Your task to perform on an android device: Add logitech g pro to the cart on amazon Image 0: 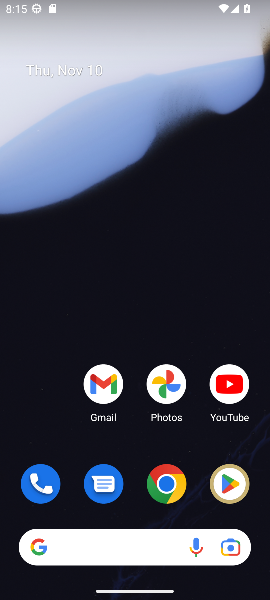
Step 0: click (166, 488)
Your task to perform on an android device: Add logitech g pro to the cart on amazon Image 1: 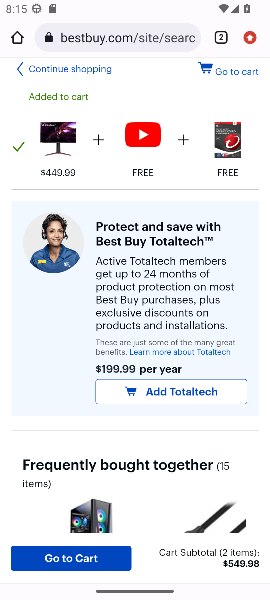
Step 1: click (126, 38)
Your task to perform on an android device: Add logitech g pro to the cart on amazon Image 2: 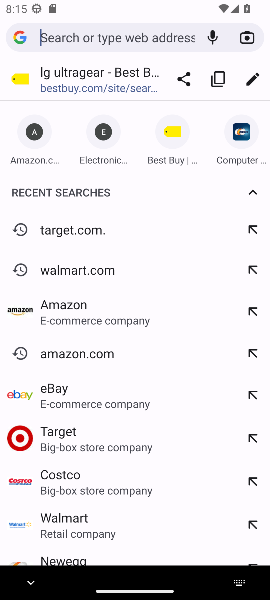
Step 2: click (37, 149)
Your task to perform on an android device: Add logitech g pro to the cart on amazon Image 3: 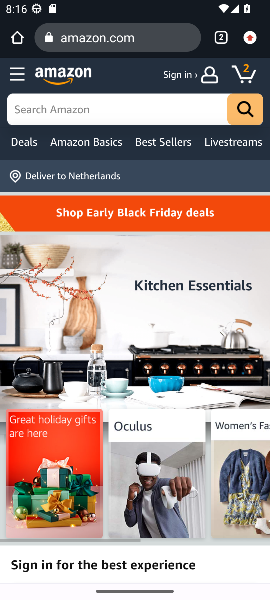
Step 3: click (50, 114)
Your task to perform on an android device: Add logitech g pro to the cart on amazon Image 4: 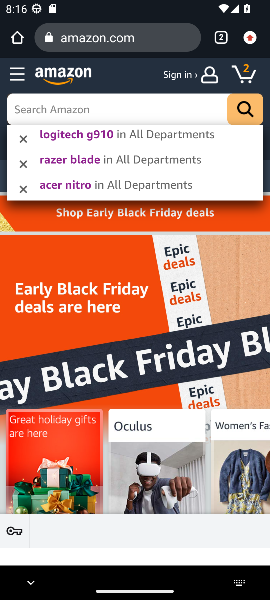
Step 4: type "logitech g pro"
Your task to perform on an android device: Add logitech g pro to the cart on amazon Image 5: 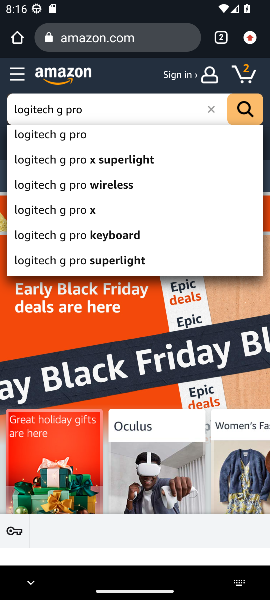
Step 5: click (65, 136)
Your task to perform on an android device: Add logitech g pro to the cart on amazon Image 6: 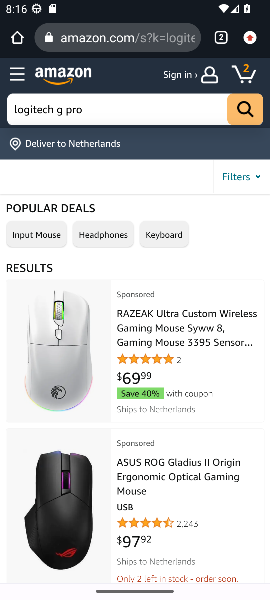
Step 6: drag from (80, 554) to (99, 305)
Your task to perform on an android device: Add logitech g pro to the cart on amazon Image 7: 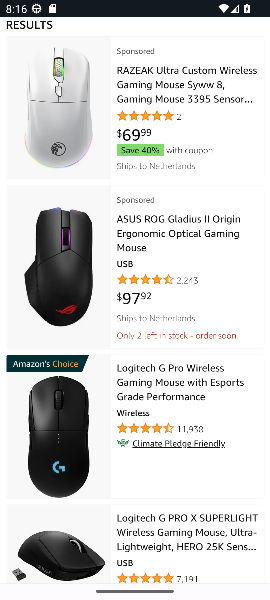
Step 7: click (82, 456)
Your task to perform on an android device: Add logitech g pro to the cart on amazon Image 8: 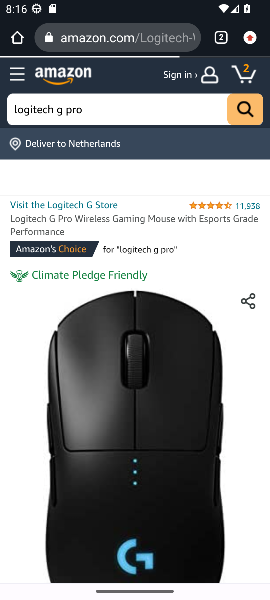
Step 8: drag from (177, 459) to (171, 140)
Your task to perform on an android device: Add logitech g pro to the cart on amazon Image 9: 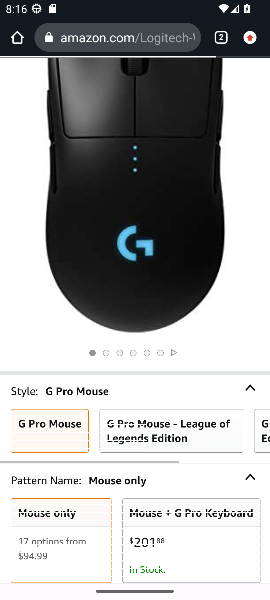
Step 9: drag from (149, 402) to (160, 170)
Your task to perform on an android device: Add logitech g pro to the cart on amazon Image 10: 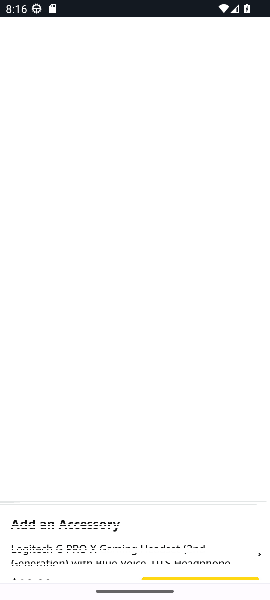
Step 10: drag from (130, 347) to (143, 520)
Your task to perform on an android device: Add logitech g pro to the cart on amazon Image 11: 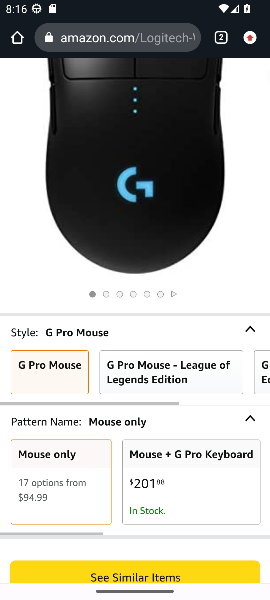
Step 11: press back button
Your task to perform on an android device: Add logitech g pro to the cart on amazon Image 12: 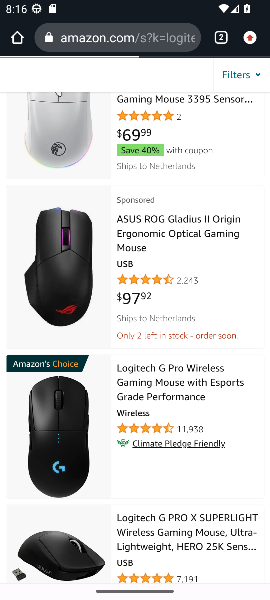
Step 12: drag from (120, 386) to (139, 202)
Your task to perform on an android device: Add logitech g pro to the cart on amazon Image 13: 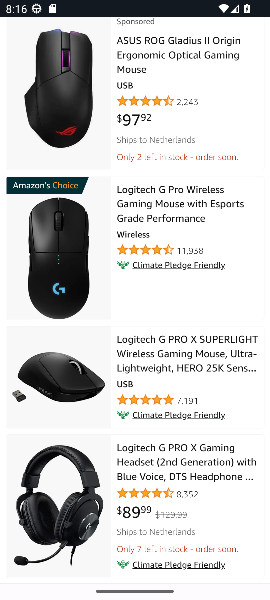
Step 13: click (67, 381)
Your task to perform on an android device: Add logitech g pro to the cart on amazon Image 14: 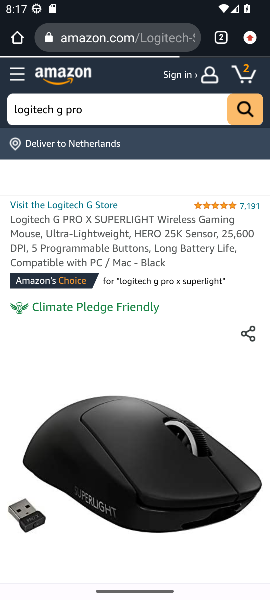
Step 14: drag from (103, 451) to (117, 240)
Your task to perform on an android device: Add logitech g pro to the cart on amazon Image 15: 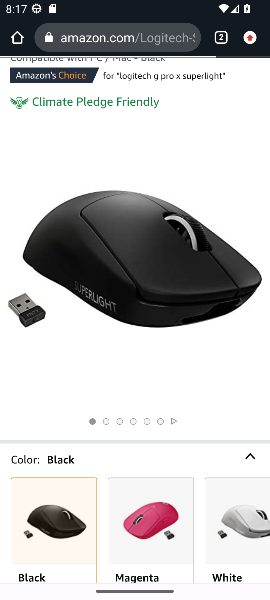
Step 15: drag from (85, 471) to (94, 219)
Your task to perform on an android device: Add logitech g pro to the cart on amazon Image 16: 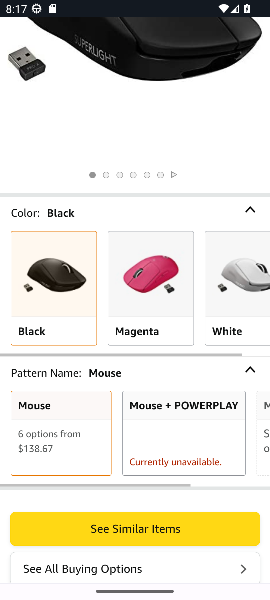
Step 16: press back button
Your task to perform on an android device: Add logitech g pro to the cart on amazon Image 17: 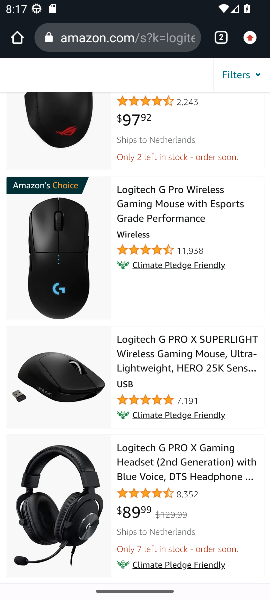
Step 17: drag from (108, 431) to (129, 149)
Your task to perform on an android device: Add logitech g pro to the cart on amazon Image 18: 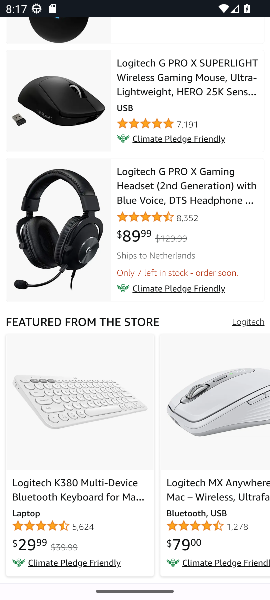
Step 18: click (62, 253)
Your task to perform on an android device: Add logitech g pro to the cart on amazon Image 19: 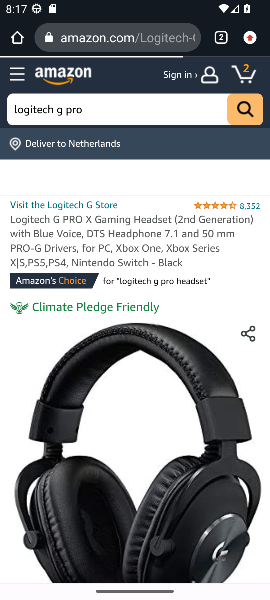
Step 19: drag from (77, 457) to (109, 102)
Your task to perform on an android device: Add logitech g pro to the cart on amazon Image 20: 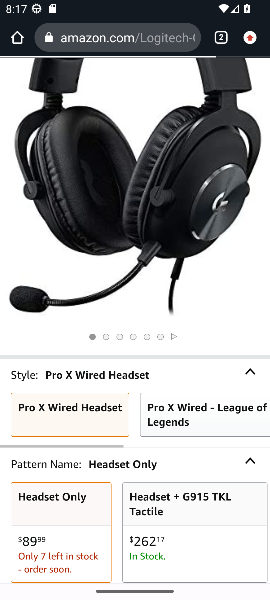
Step 20: drag from (124, 160) to (134, 475)
Your task to perform on an android device: Add logitech g pro to the cart on amazon Image 21: 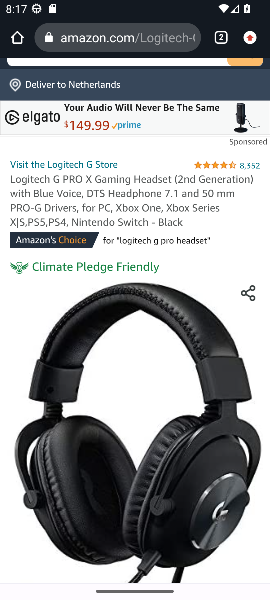
Step 21: drag from (133, 410) to (124, 115)
Your task to perform on an android device: Add logitech g pro to the cart on amazon Image 22: 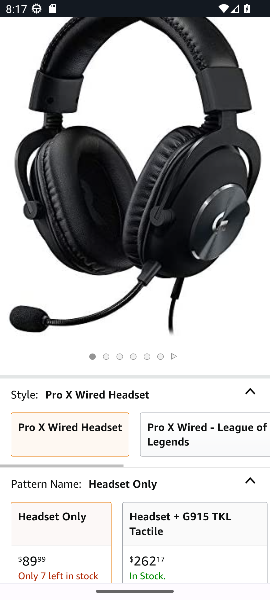
Step 22: drag from (112, 477) to (119, 271)
Your task to perform on an android device: Add logitech g pro to the cart on amazon Image 23: 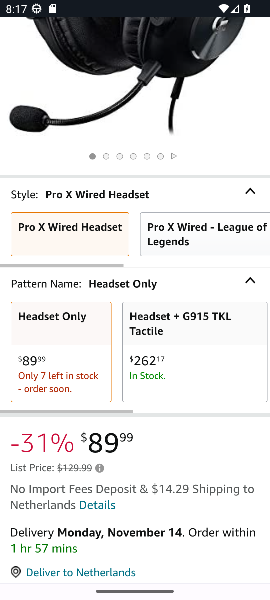
Step 23: drag from (119, 497) to (134, 264)
Your task to perform on an android device: Add logitech g pro to the cart on amazon Image 24: 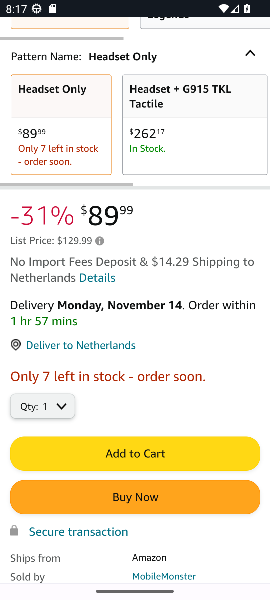
Step 24: click (133, 447)
Your task to perform on an android device: Add logitech g pro to the cart on amazon Image 25: 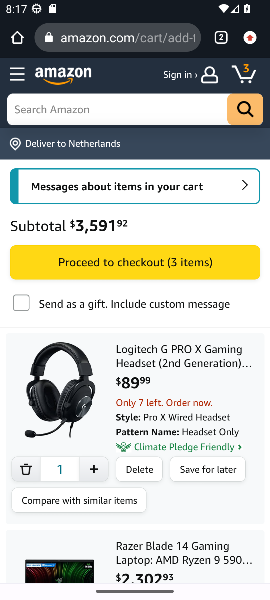
Step 25: task complete